Your task to perform on an android device: What's on my calendar today? Image 0: 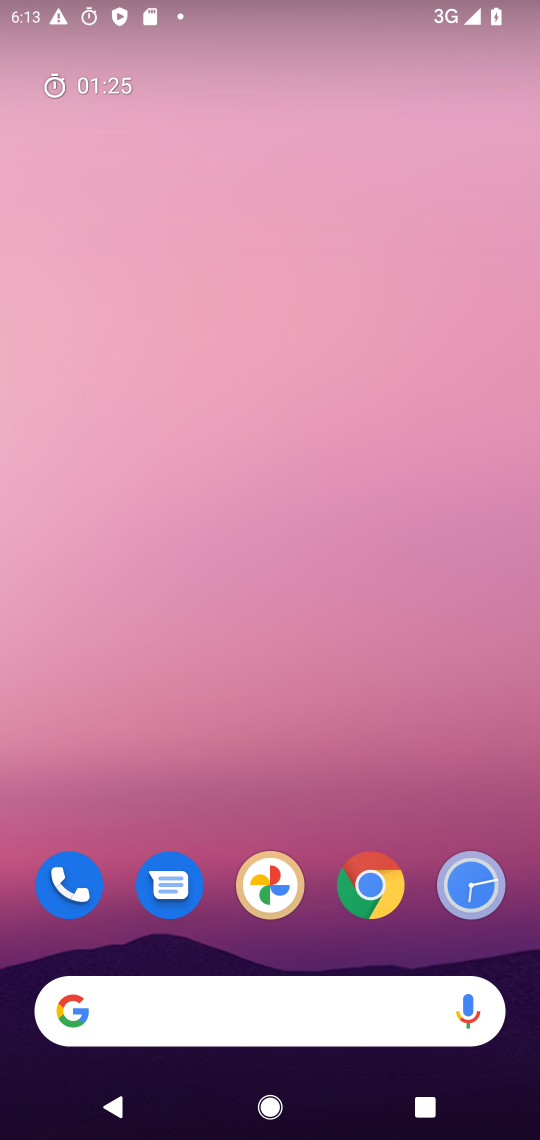
Step 0: drag from (206, 921) to (241, 118)
Your task to perform on an android device: What's on my calendar today? Image 1: 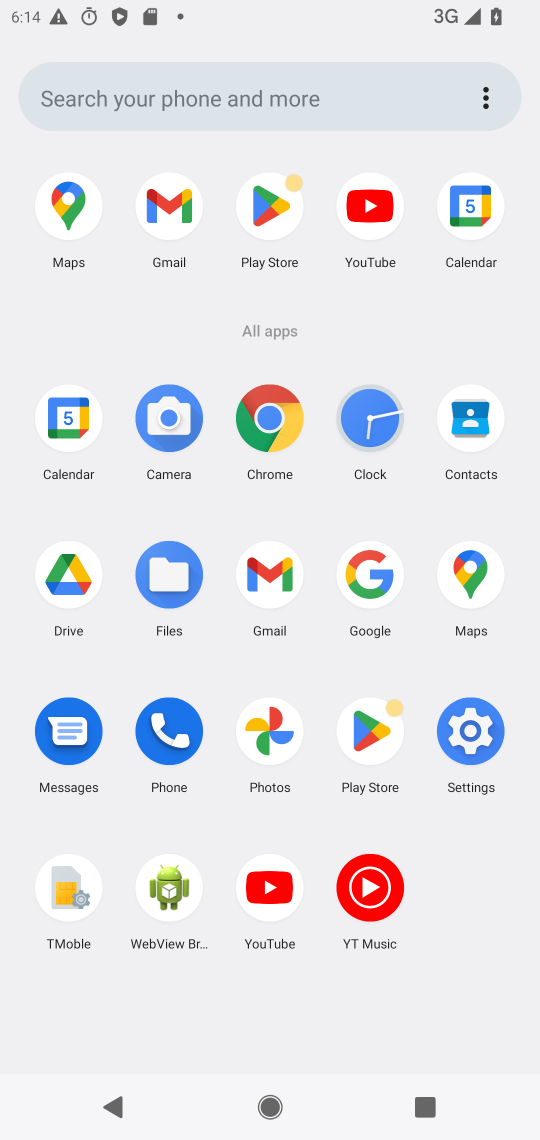
Step 1: click (68, 425)
Your task to perform on an android device: What's on my calendar today? Image 2: 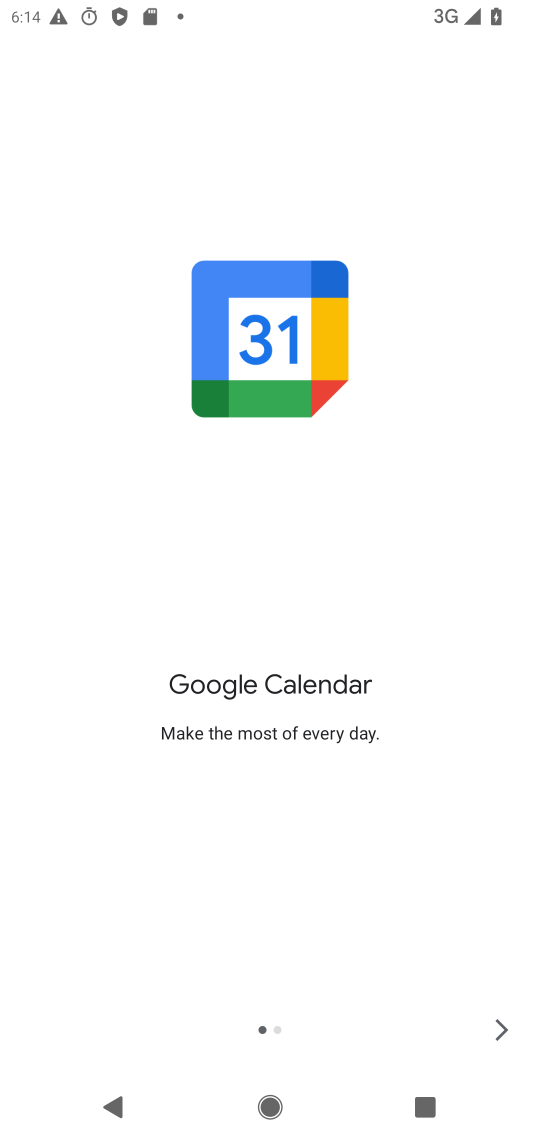
Step 2: click (489, 1019)
Your task to perform on an android device: What's on my calendar today? Image 3: 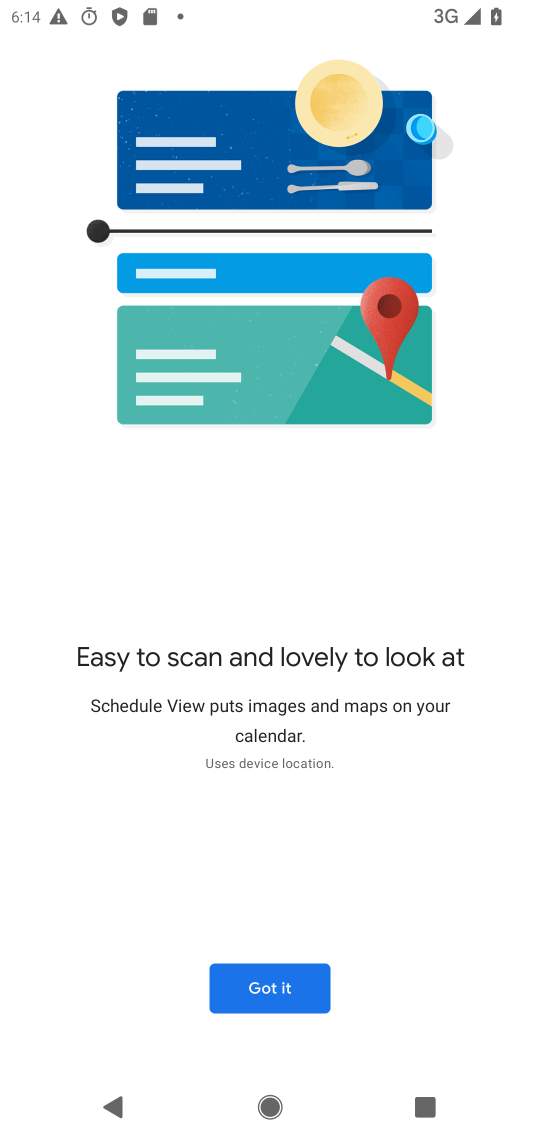
Step 3: click (305, 993)
Your task to perform on an android device: What's on my calendar today? Image 4: 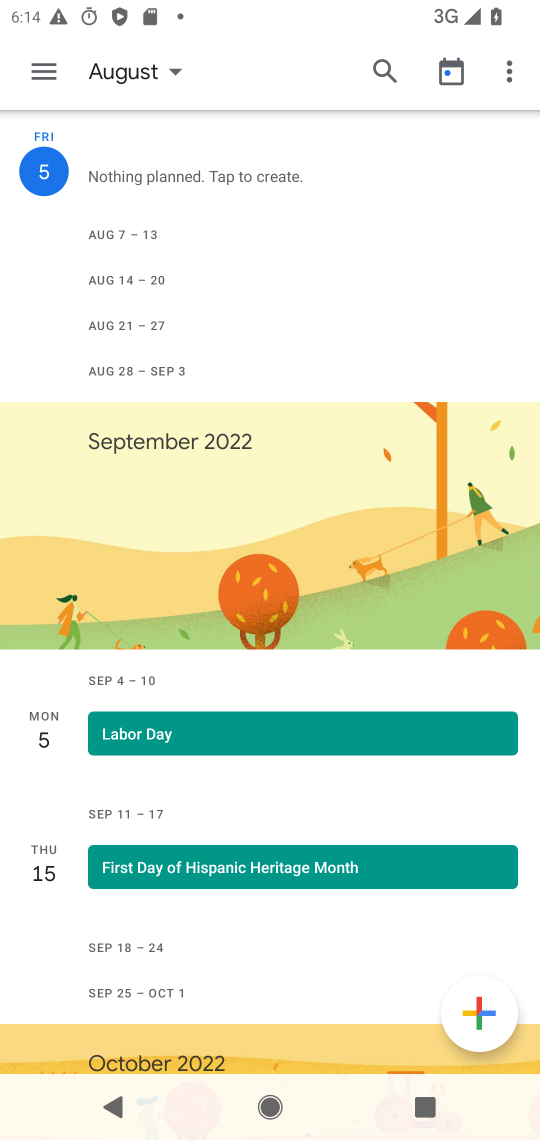
Step 4: click (49, 80)
Your task to perform on an android device: What's on my calendar today? Image 5: 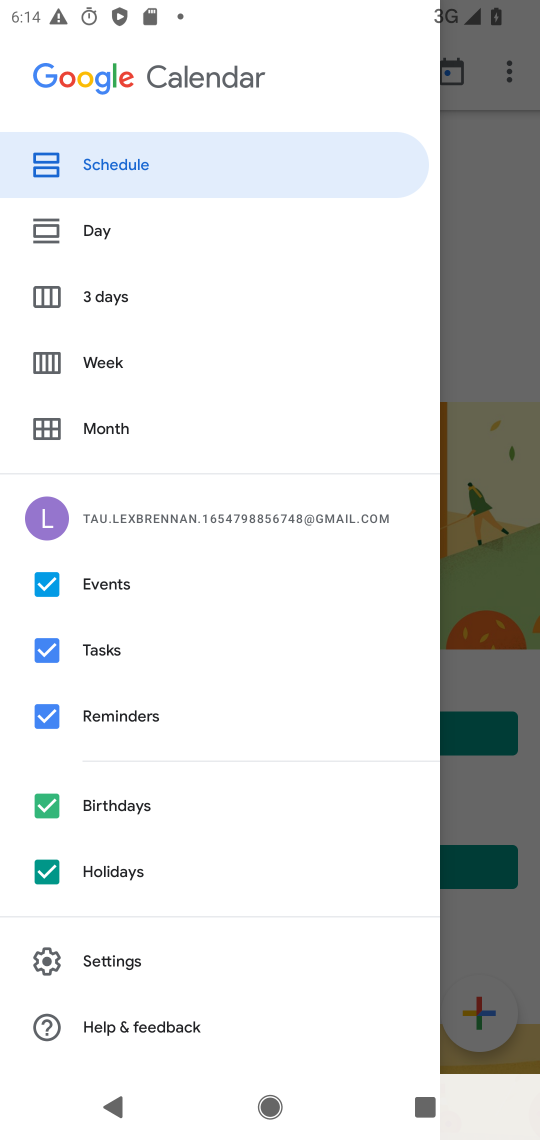
Step 5: click (127, 240)
Your task to perform on an android device: What's on my calendar today? Image 6: 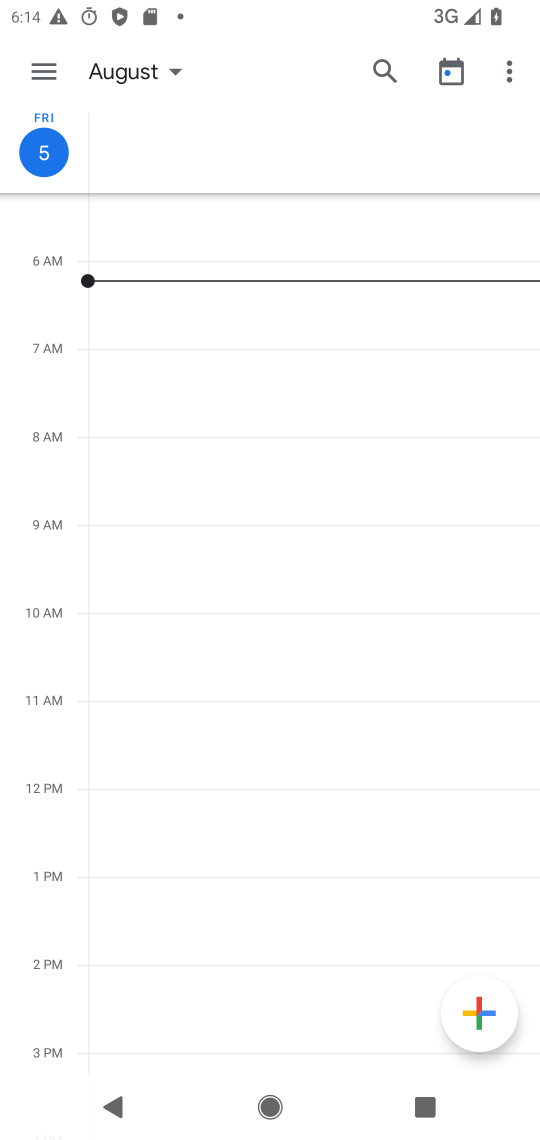
Step 6: task complete